Your task to perform on an android device: change the clock style Image 0: 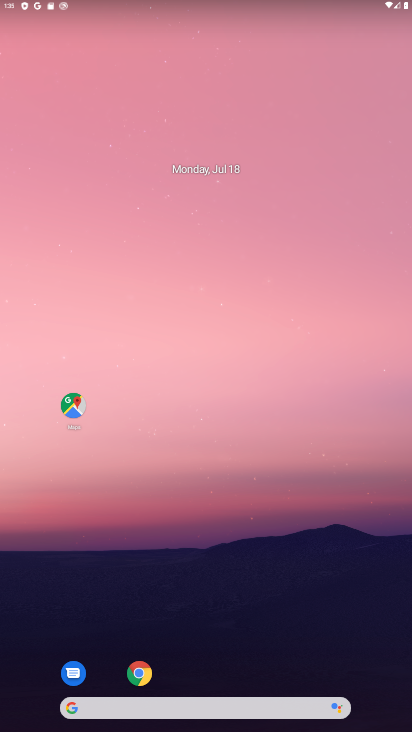
Step 0: drag from (206, 710) to (258, 147)
Your task to perform on an android device: change the clock style Image 1: 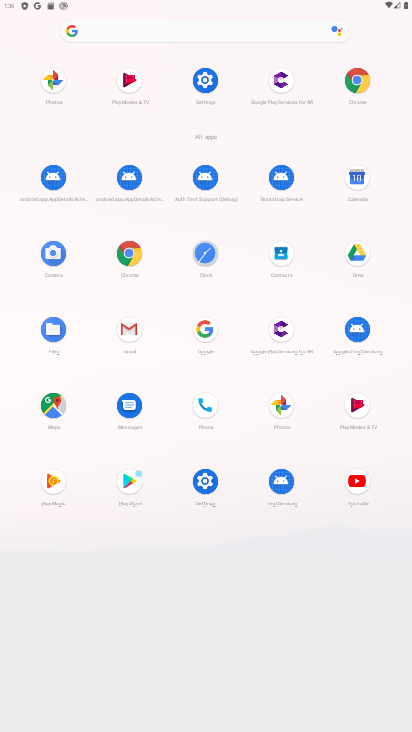
Step 1: click (207, 255)
Your task to perform on an android device: change the clock style Image 2: 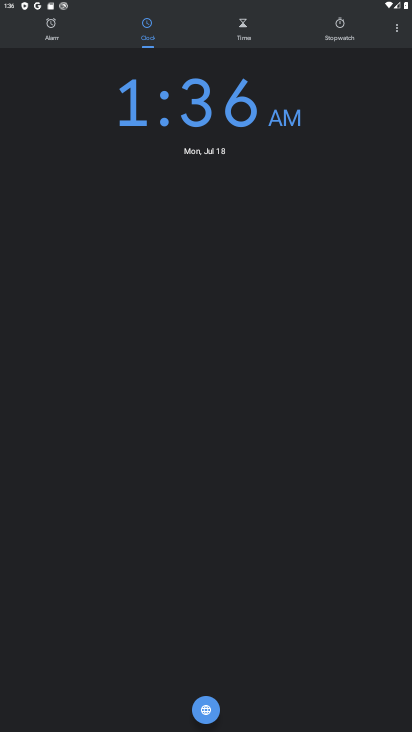
Step 2: click (398, 31)
Your task to perform on an android device: change the clock style Image 3: 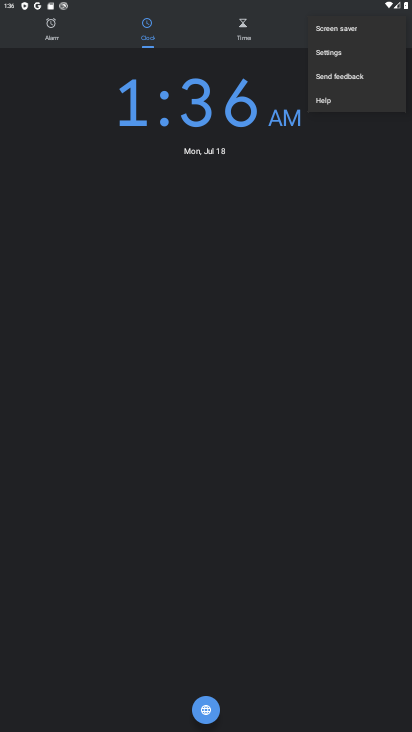
Step 3: click (326, 50)
Your task to perform on an android device: change the clock style Image 4: 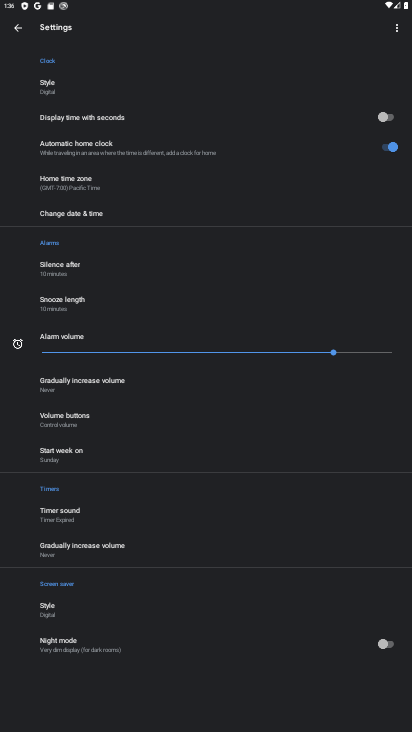
Step 4: click (61, 98)
Your task to perform on an android device: change the clock style Image 5: 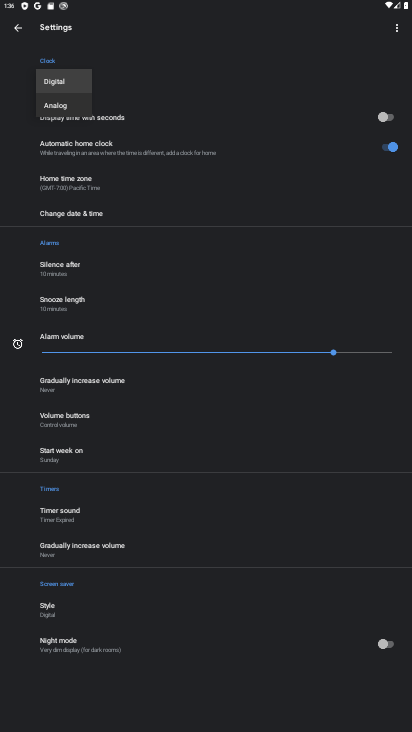
Step 5: click (60, 108)
Your task to perform on an android device: change the clock style Image 6: 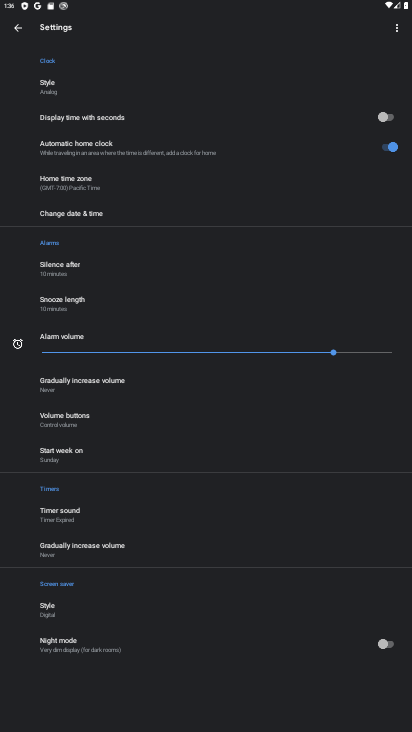
Step 6: task complete